Your task to perform on an android device: see sites visited before in the chrome app Image 0: 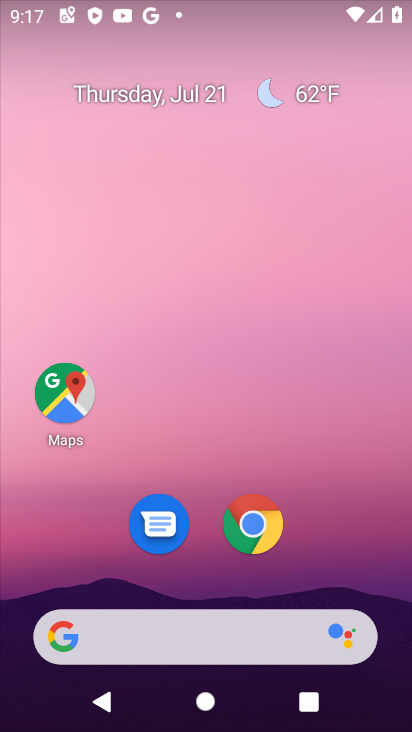
Step 0: press home button
Your task to perform on an android device: see sites visited before in the chrome app Image 1: 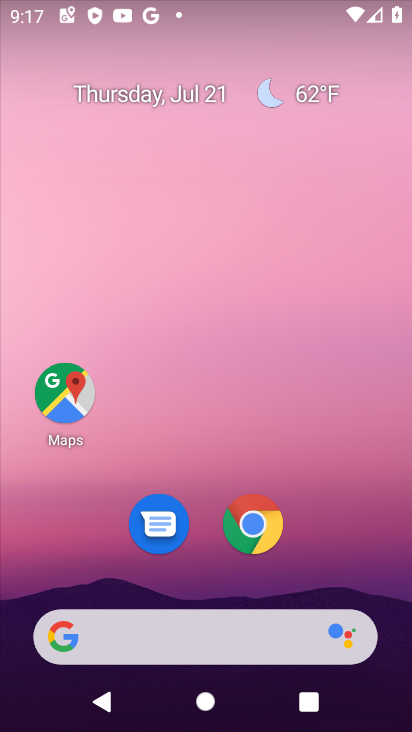
Step 1: click (252, 528)
Your task to perform on an android device: see sites visited before in the chrome app Image 2: 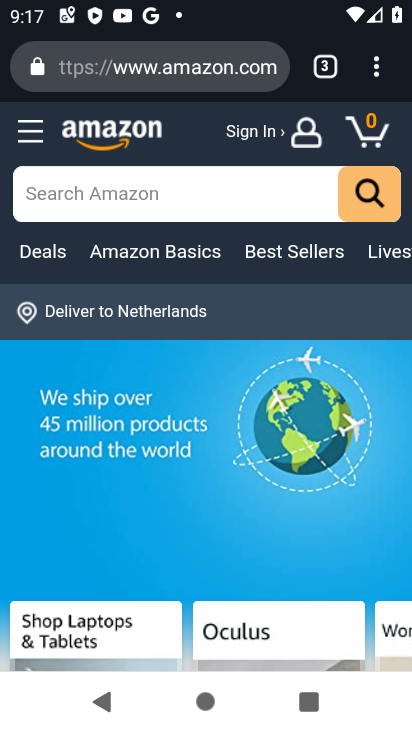
Step 2: task complete